Your task to perform on an android device: open app "Microsoft Outlook" (install if not already installed) Image 0: 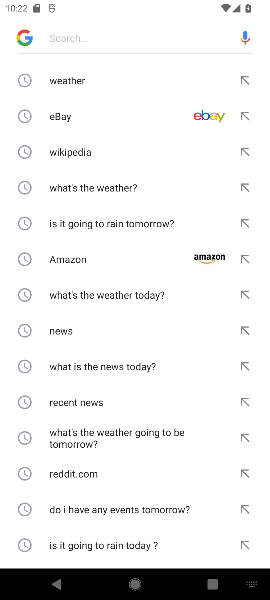
Step 0: press home button
Your task to perform on an android device: open app "Microsoft Outlook" (install if not already installed) Image 1: 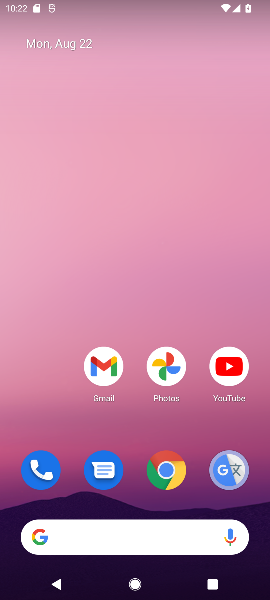
Step 1: drag from (78, 505) to (177, 60)
Your task to perform on an android device: open app "Microsoft Outlook" (install if not already installed) Image 2: 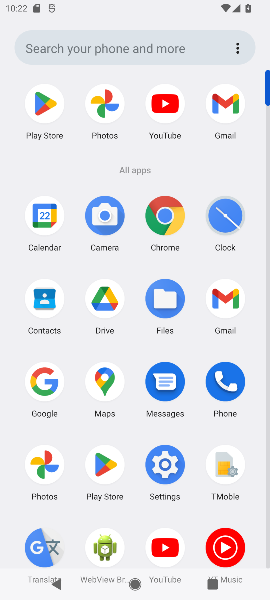
Step 2: click (47, 99)
Your task to perform on an android device: open app "Microsoft Outlook" (install if not already installed) Image 3: 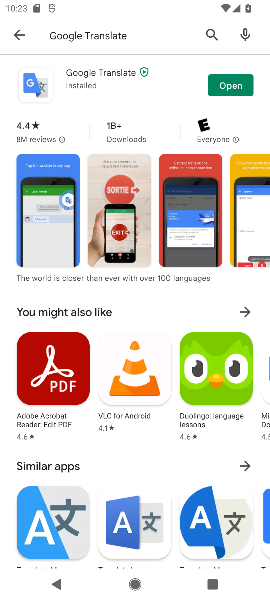
Step 3: press back button
Your task to perform on an android device: open app "Microsoft Outlook" (install if not already installed) Image 4: 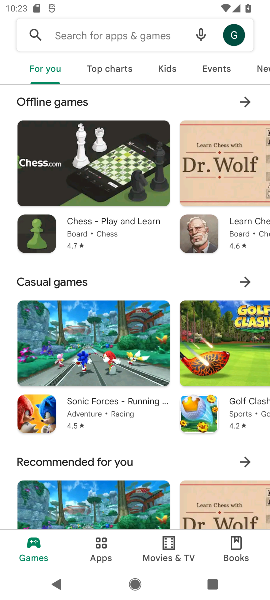
Step 4: click (135, 45)
Your task to perform on an android device: open app "Microsoft Outlook" (install if not already installed) Image 5: 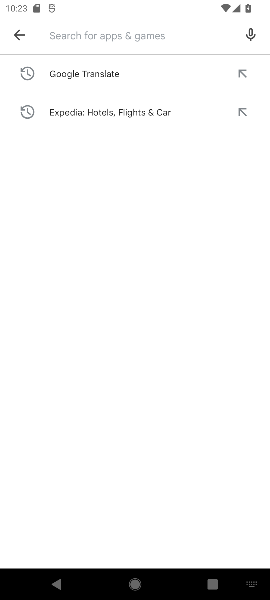
Step 5: type "Microsoft Outlook"
Your task to perform on an android device: open app "Microsoft Outlook" (install if not already installed) Image 6: 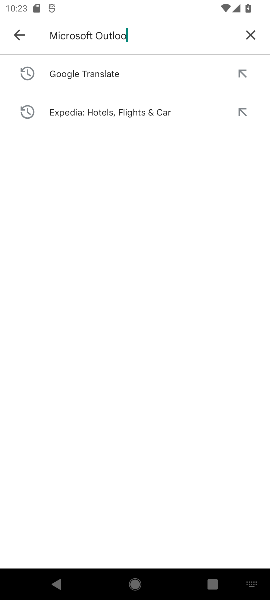
Step 6: press enter
Your task to perform on an android device: open app "Microsoft Outlook" (install if not already installed) Image 7: 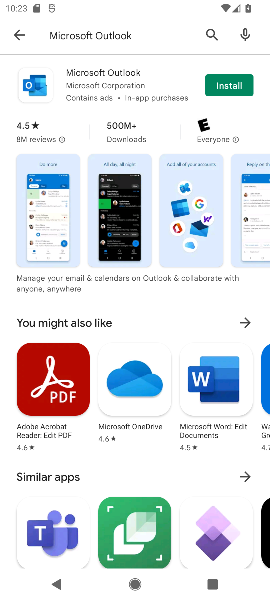
Step 7: click (220, 81)
Your task to perform on an android device: open app "Microsoft Outlook" (install if not already installed) Image 8: 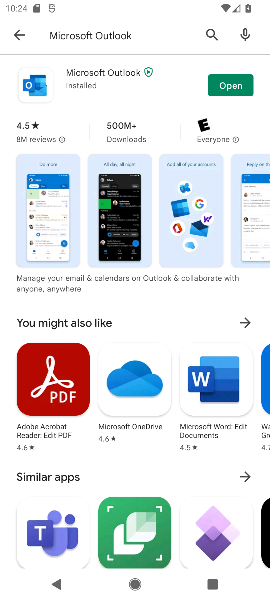
Step 8: click (245, 83)
Your task to perform on an android device: open app "Microsoft Outlook" (install if not already installed) Image 9: 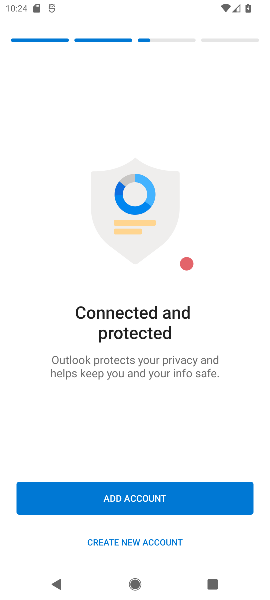
Step 9: task complete